Your task to perform on an android device: turn on the 12-hour format for clock Image 0: 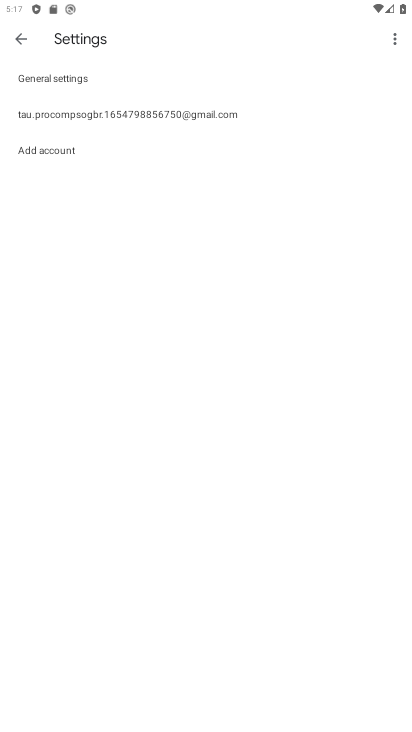
Step 0: press home button
Your task to perform on an android device: turn on the 12-hour format for clock Image 1: 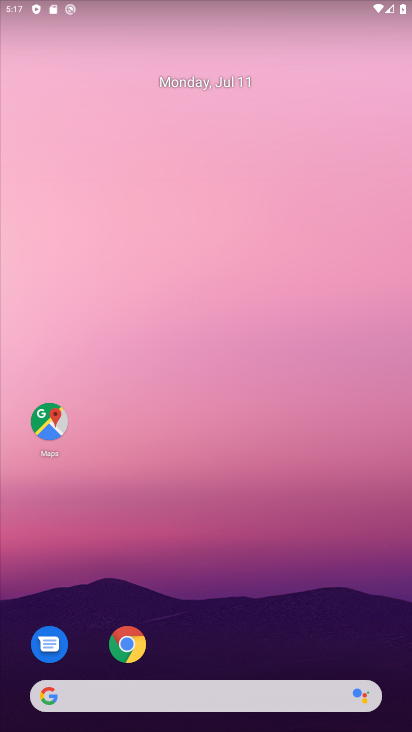
Step 1: drag from (232, 694) to (252, 87)
Your task to perform on an android device: turn on the 12-hour format for clock Image 2: 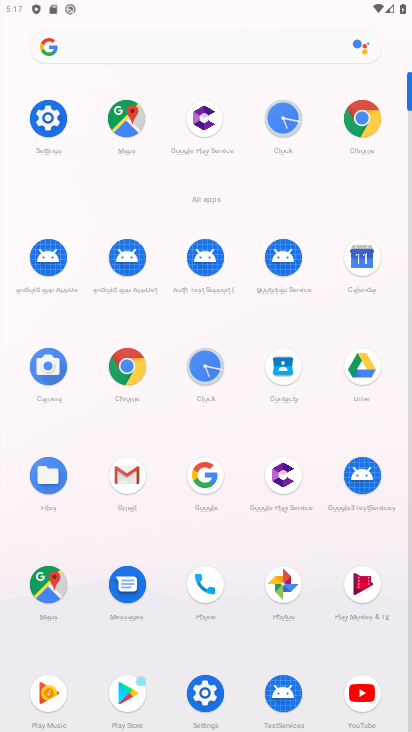
Step 2: click (199, 373)
Your task to perform on an android device: turn on the 12-hour format for clock Image 3: 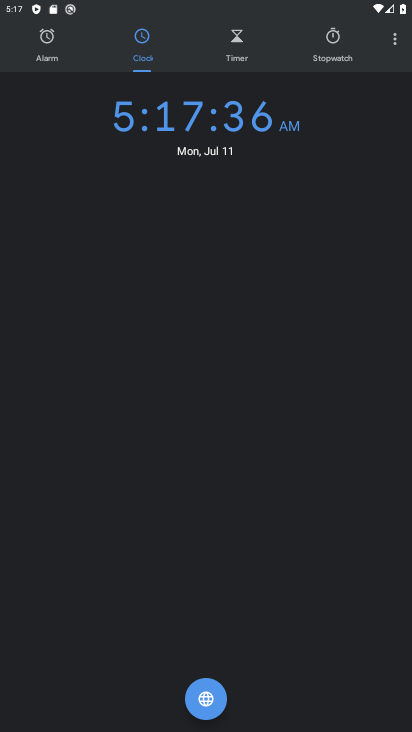
Step 3: click (397, 42)
Your task to perform on an android device: turn on the 12-hour format for clock Image 4: 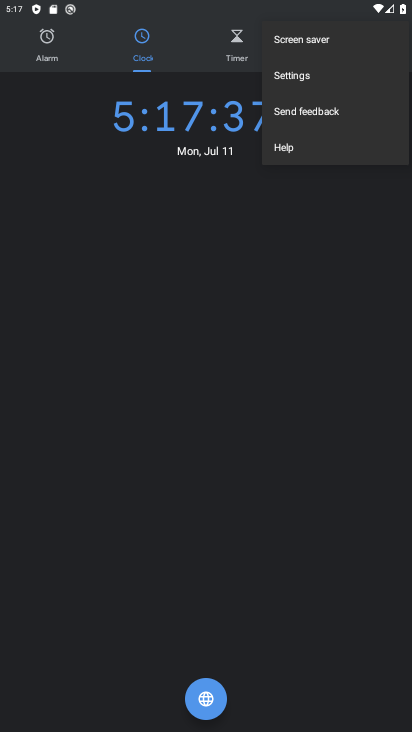
Step 4: click (325, 85)
Your task to perform on an android device: turn on the 12-hour format for clock Image 5: 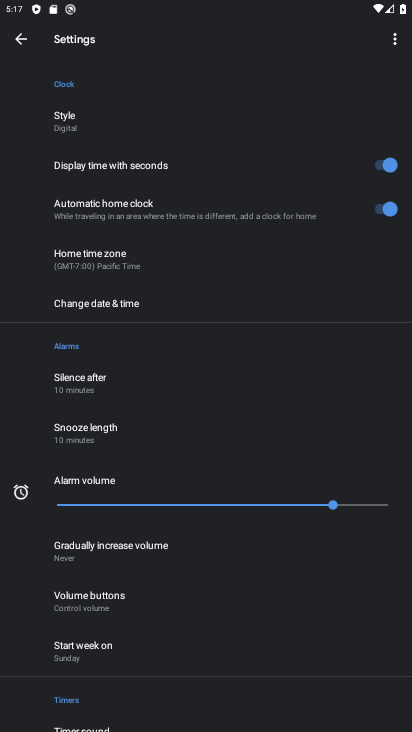
Step 5: click (134, 299)
Your task to perform on an android device: turn on the 12-hour format for clock Image 6: 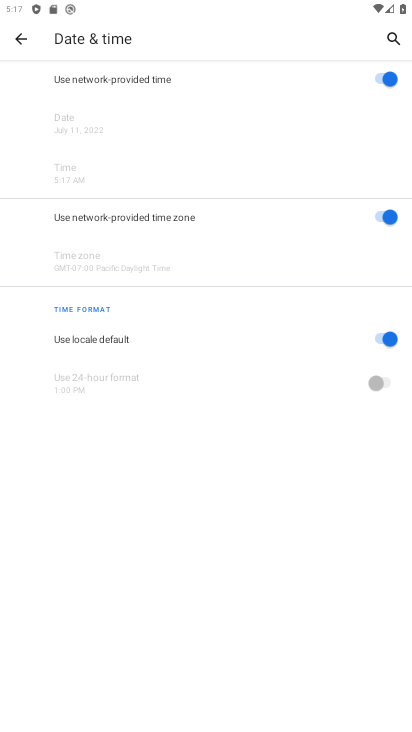
Step 6: click (383, 342)
Your task to perform on an android device: turn on the 12-hour format for clock Image 7: 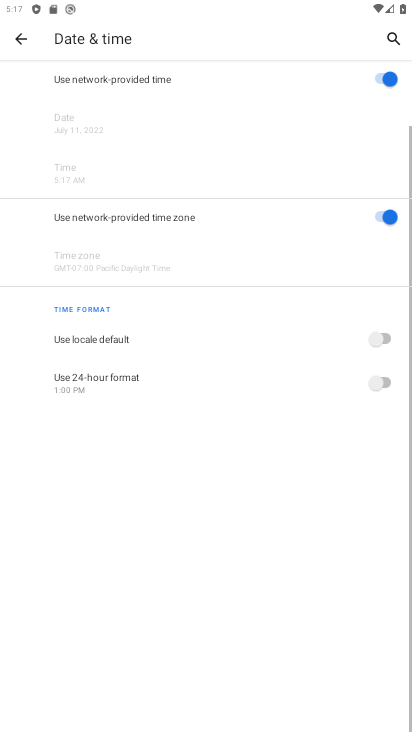
Step 7: task complete